Your task to perform on an android device: Open the phone app and click the voicemail tab. Image 0: 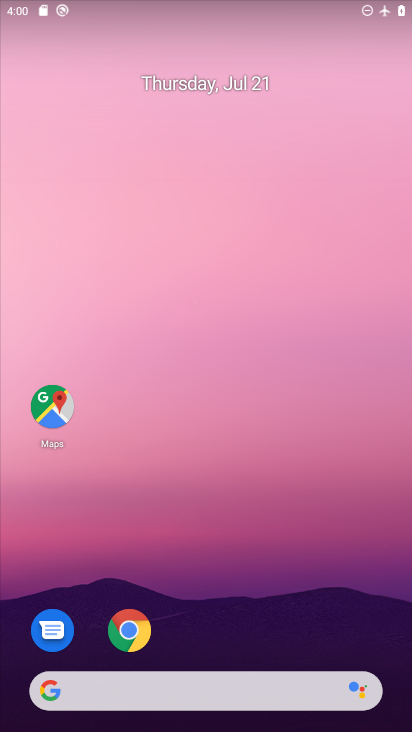
Step 0: drag from (233, 673) to (291, 95)
Your task to perform on an android device: Open the phone app and click the voicemail tab. Image 1: 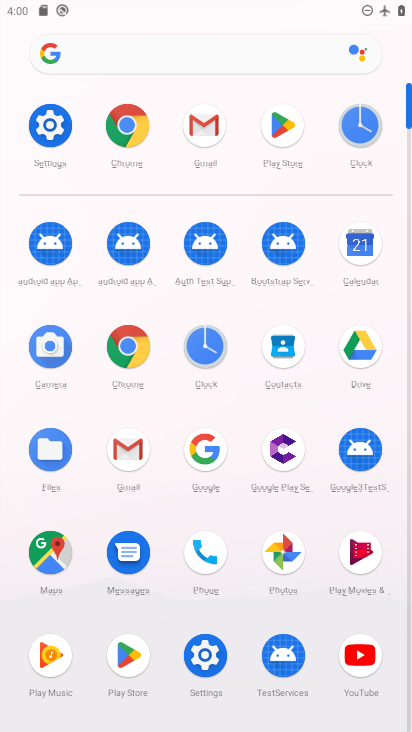
Step 1: click (208, 541)
Your task to perform on an android device: Open the phone app and click the voicemail tab. Image 2: 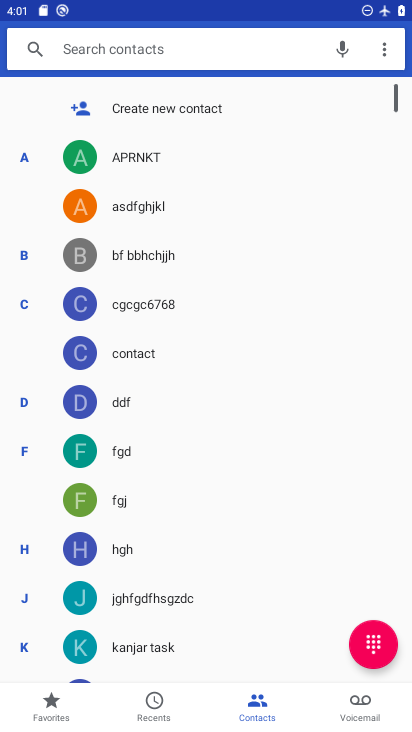
Step 2: click (251, 701)
Your task to perform on an android device: Open the phone app and click the voicemail tab. Image 3: 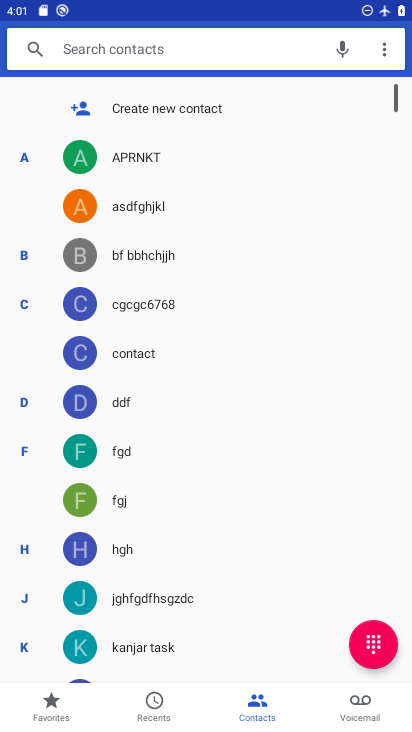
Step 3: click (353, 718)
Your task to perform on an android device: Open the phone app and click the voicemail tab. Image 4: 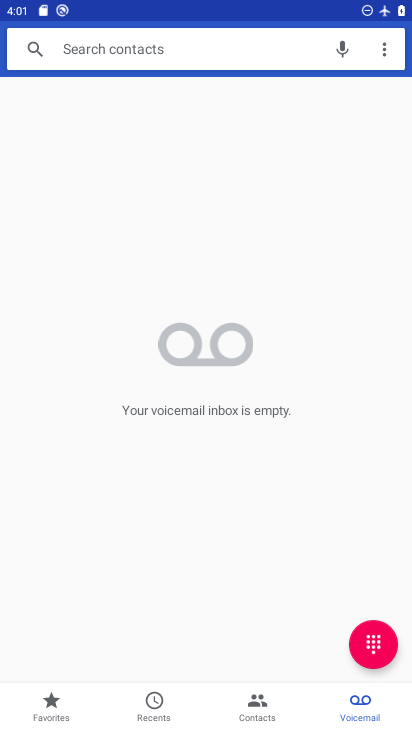
Step 4: task complete